Your task to perform on an android device: Open Google Image 0: 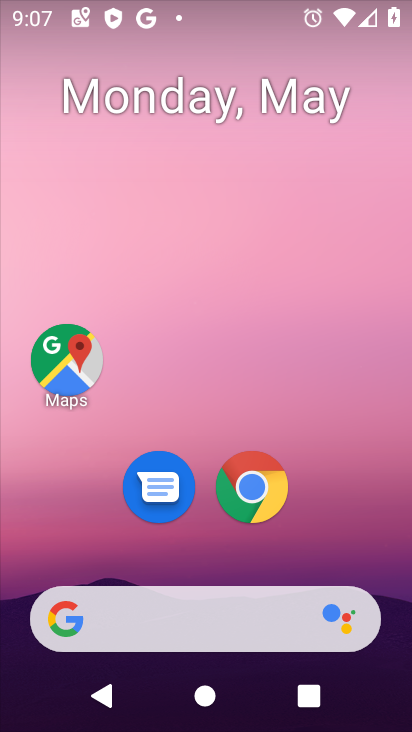
Step 0: click (167, 609)
Your task to perform on an android device: Open Google Image 1: 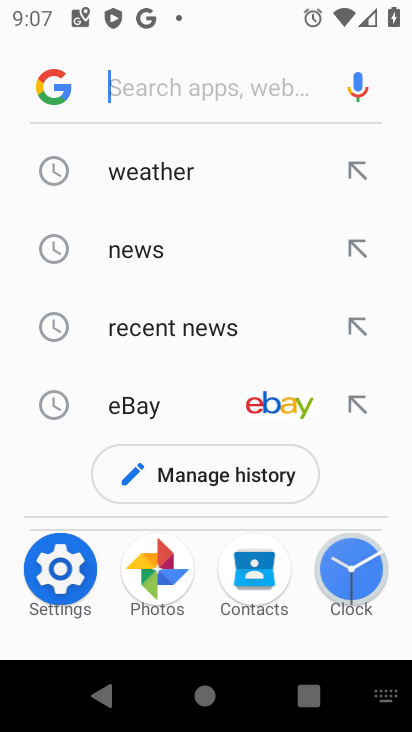
Step 1: task complete